Your task to perform on an android device: Open Google Image 0: 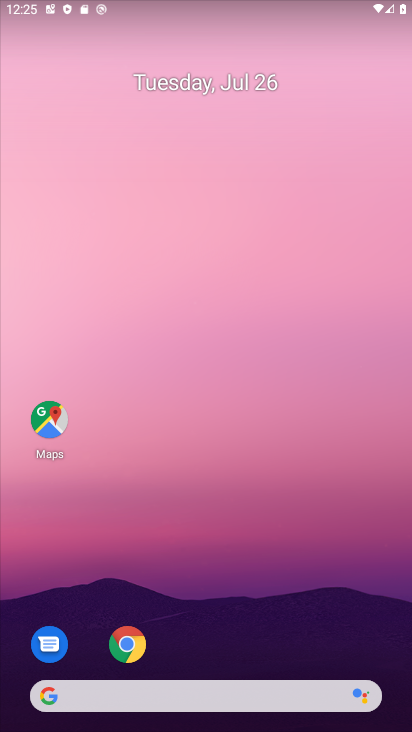
Step 0: drag from (292, 600) to (281, 146)
Your task to perform on an android device: Open Google Image 1: 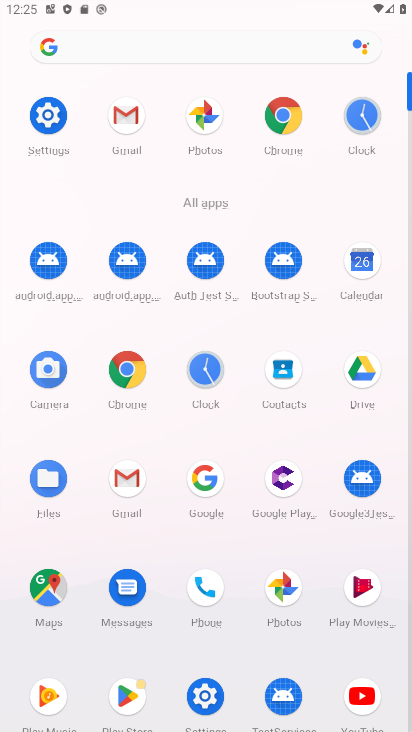
Step 1: click (188, 474)
Your task to perform on an android device: Open Google Image 2: 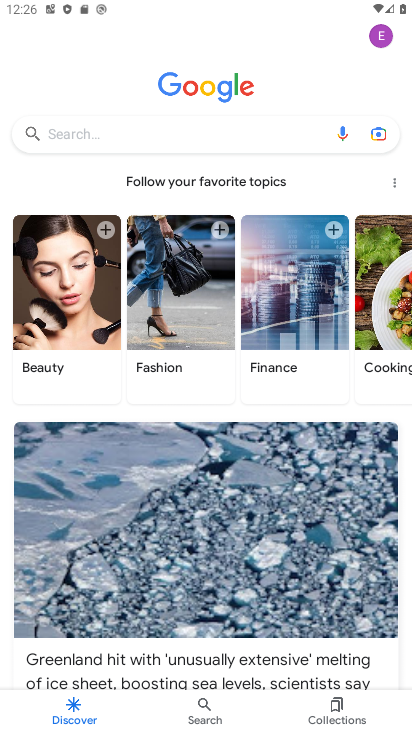
Step 2: task complete